Your task to perform on an android device: open wifi settings Image 0: 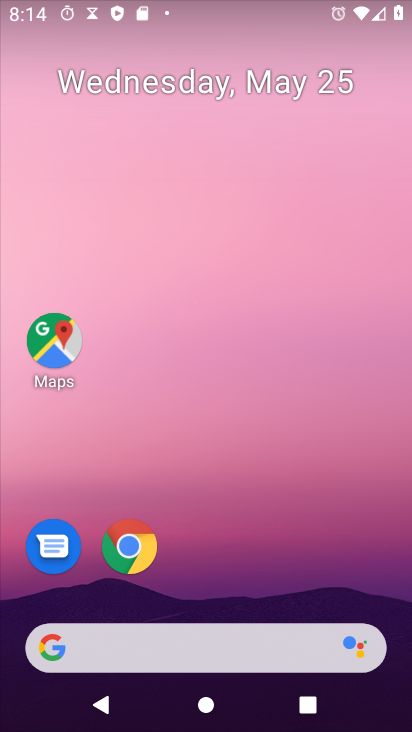
Step 0: drag from (196, 567) to (339, 18)
Your task to perform on an android device: open wifi settings Image 1: 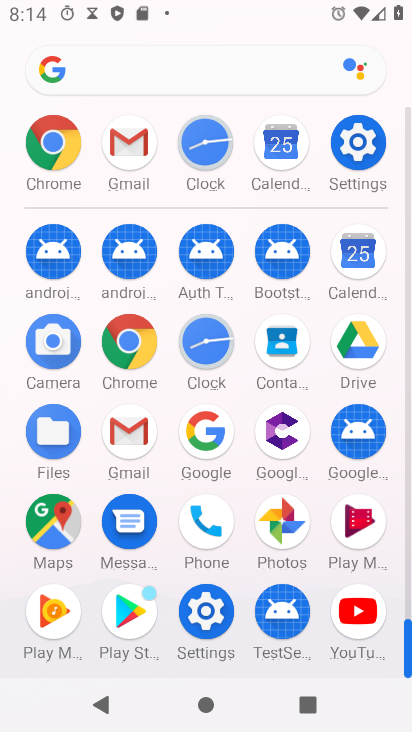
Step 1: click (354, 161)
Your task to perform on an android device: open wifi settings Image 2: 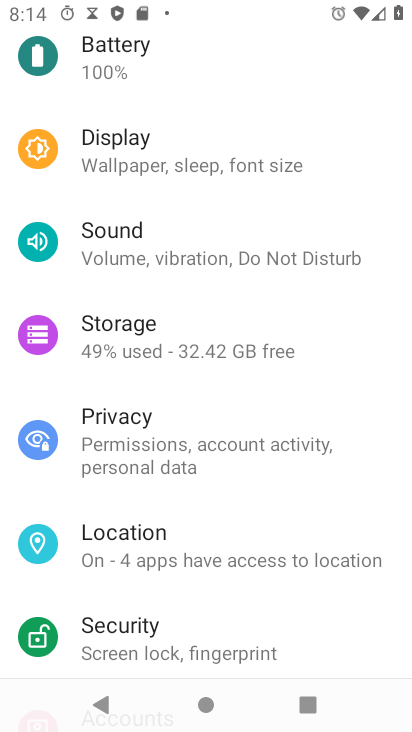
Step 2: drag from (237, 123) to (229, 483)
Your task to perform on an android device: open wifi settings Image 3: 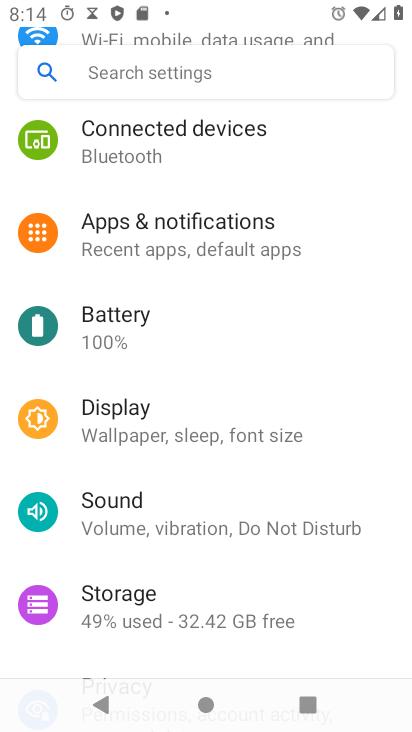
Step 3: drag from (170, 155) to (164, 537)
Your task to perform on an android device: open wifi settings Image 4: 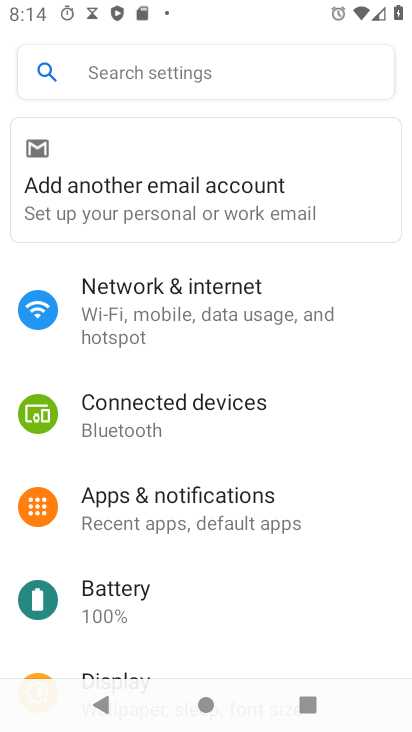
Step 4: click (154, 296)
Your task to perform on an android device: open wifi settings Image 5: 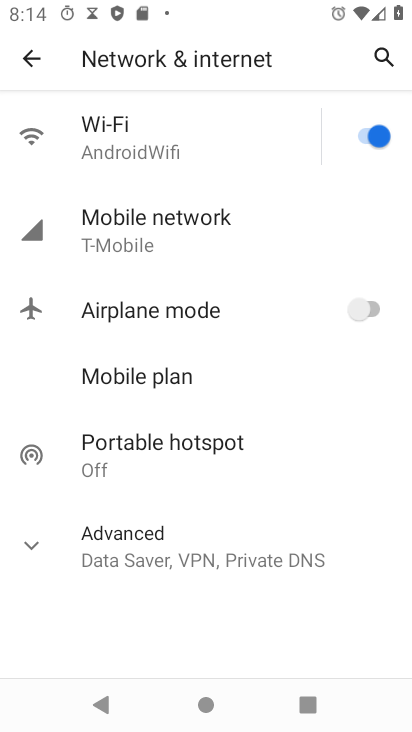
Step 5: click (148, 144)
Your task to perform on an android device: open wifi settings Image 6: 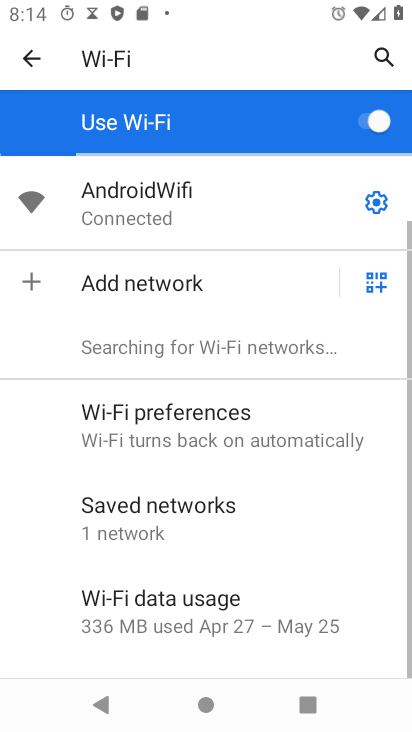
Step 6: task complete